Your task to perform on an android device: Go to battery settings Image 0: 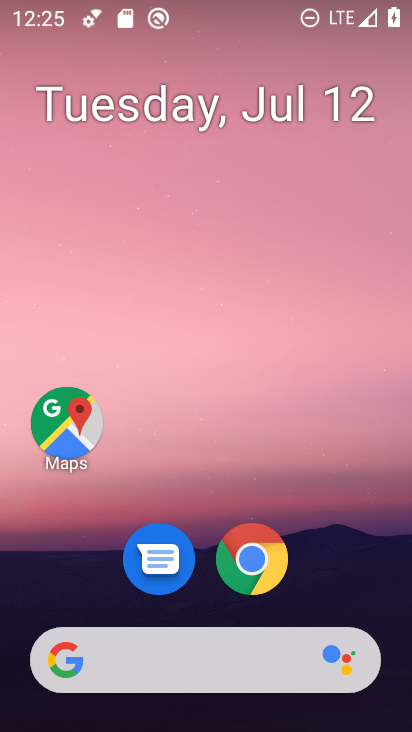
Step 0: drag from (125, 572) to (231, 86)
Your task to perform on an android device: Go to battery settings Image 1: 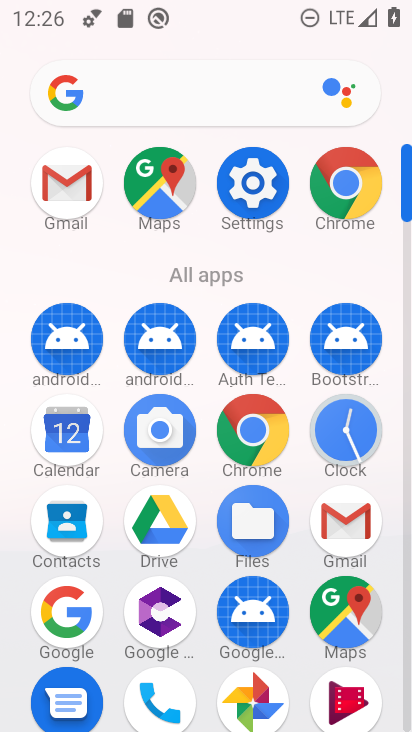
Step 1: click (245, 173)
Your task to perform on an android device: Go to battery settings Image 2: 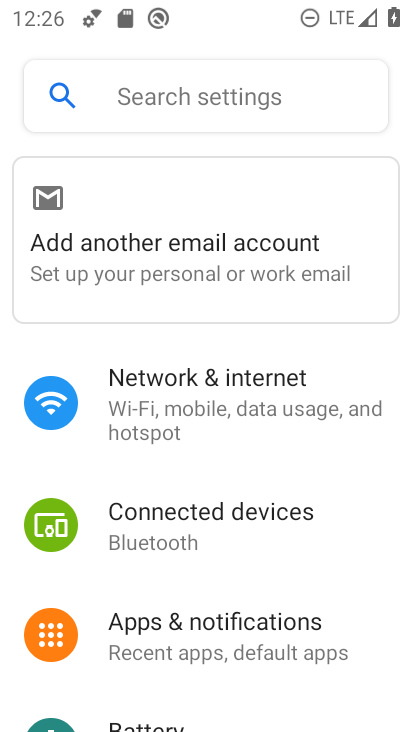
Step 2: click (128, 726)
Your task to perform on an android device: Go to battery settings Image 3: 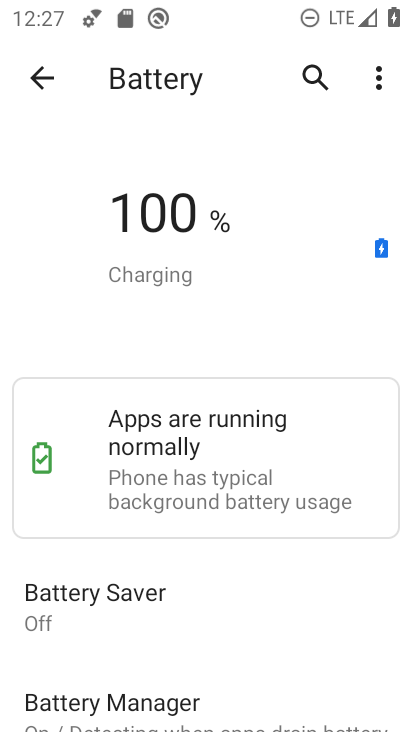
Step 3: task complete